Your task to perform on an android device: Open calendar and show me the fourth week of next month Image 0: 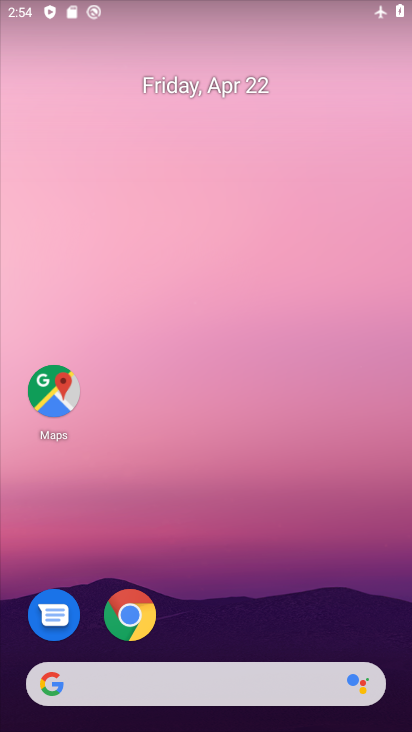
Step 0: drag from (342, 635) to (249, 226)
Your task to perform on an android device: Open calendar and show me the fourth week of next month Image 1: 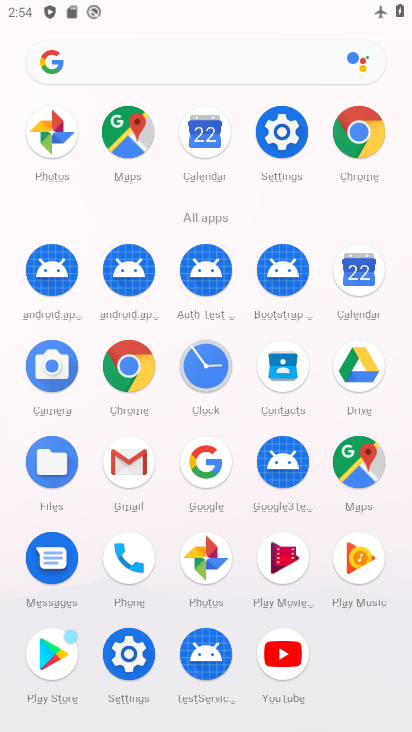
Step 1: click (207, 149)
Your task to perform on an android device: Open calendar and show me the fourth week of next month Image 2: 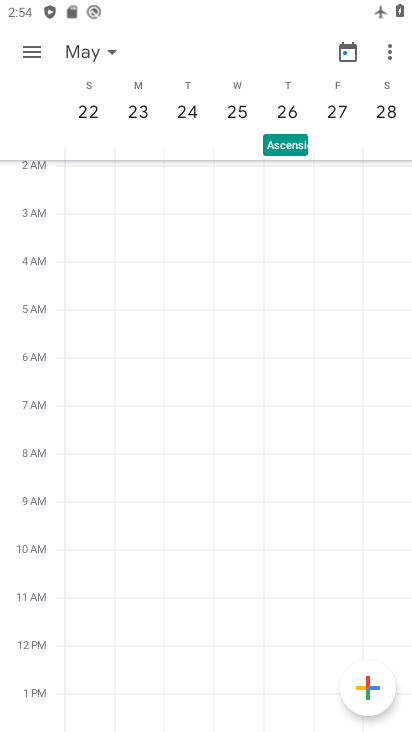
Step 2: task complete